Your task to perform on an android device: find snoozed emails in the gmail app Image 0: 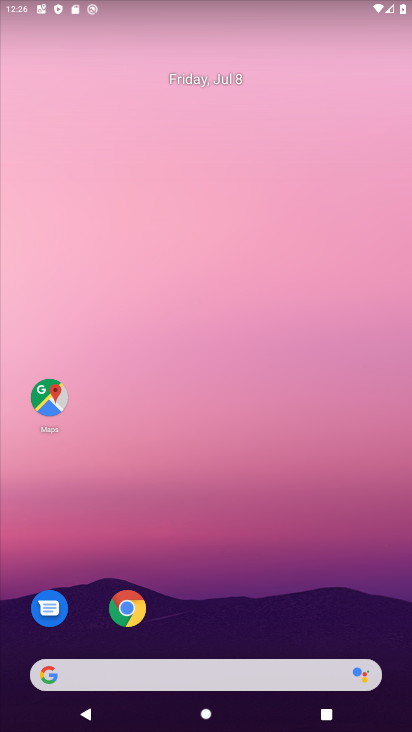
Step 0: drag from (39, 677) to (185, 159)
Your task to perform on an android device: find snoozed emails in the gmail app Image 1: 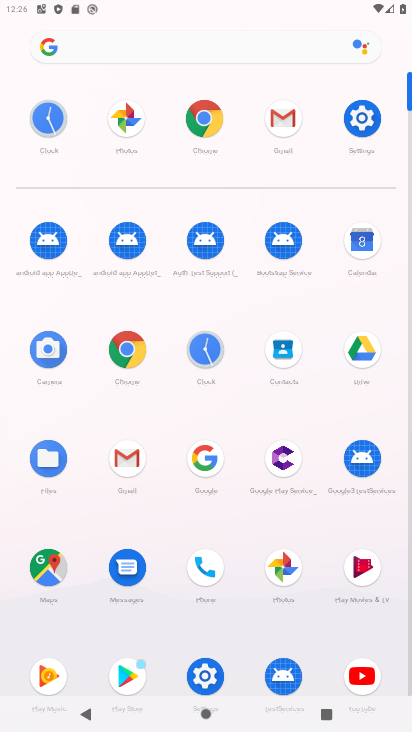
Step 1: click (134, 472)
Your task to perform on an android device: find snoozed emails in the gmail app Image 2: 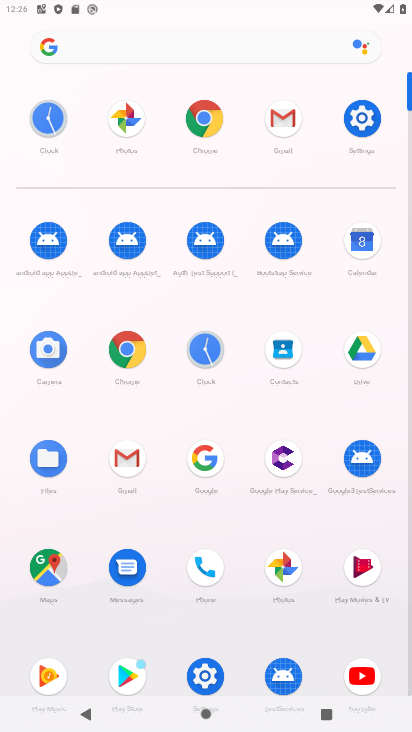
Step 2: click (134, 472)
Your task to perform on an android device: find snoozed emails in the gmail app Image 3: 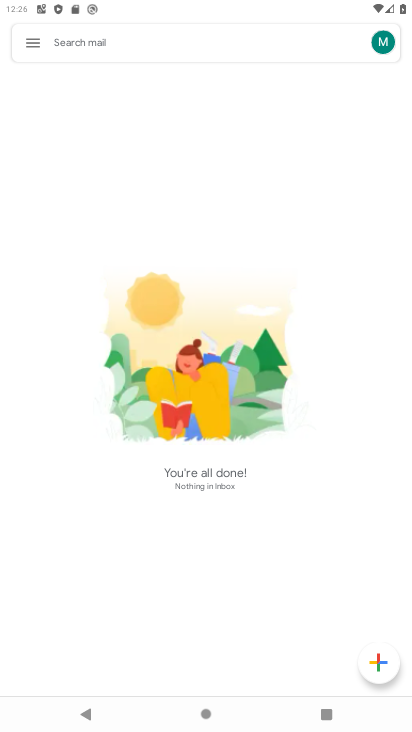
Step 3: click (28, 49)
Your task to perform on an android device: find snoozed emails in the gmail app Image 4: 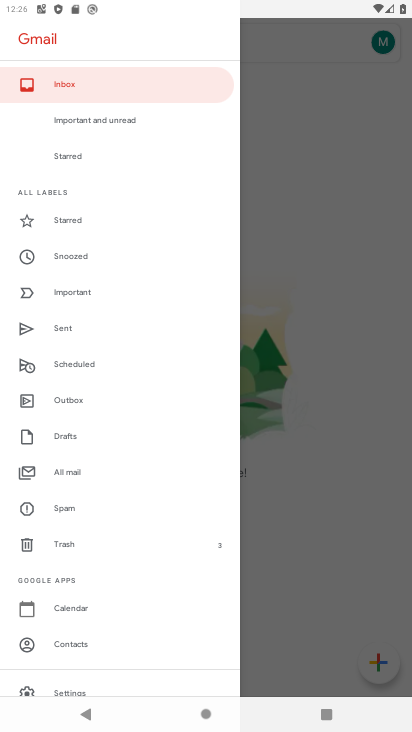
Step 4: click (70, 254)
Your task to perform on an android device: find snoozed emails in the gmail app Image 5: 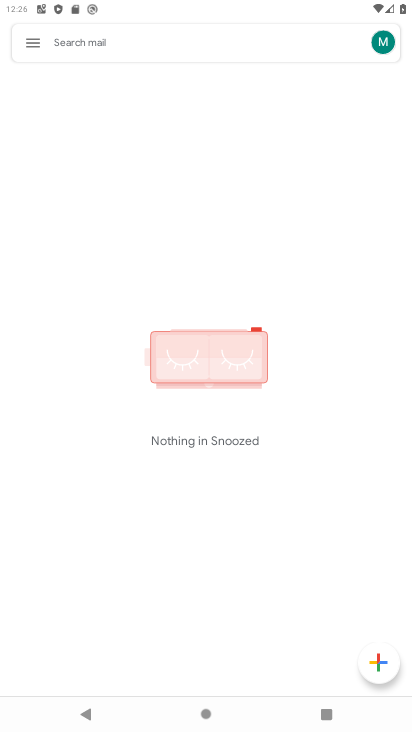
Step 5: task complete